Your task to perform on an android device: turn off data saver in the chrome app Image 0: 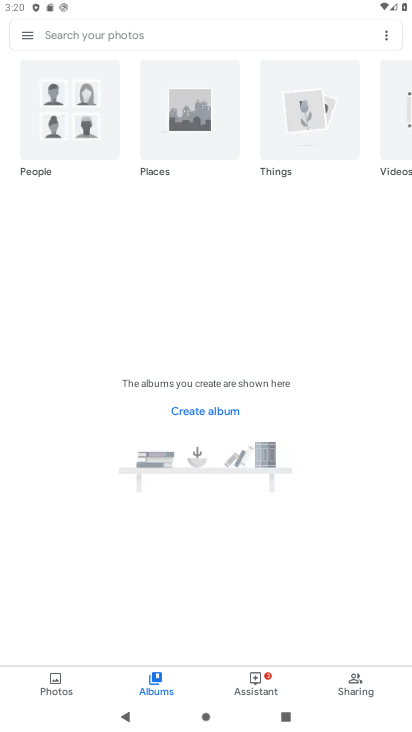
Step 0: press home button
Your task to perform on an android device: turn off data saver in the chrome app Image 1: 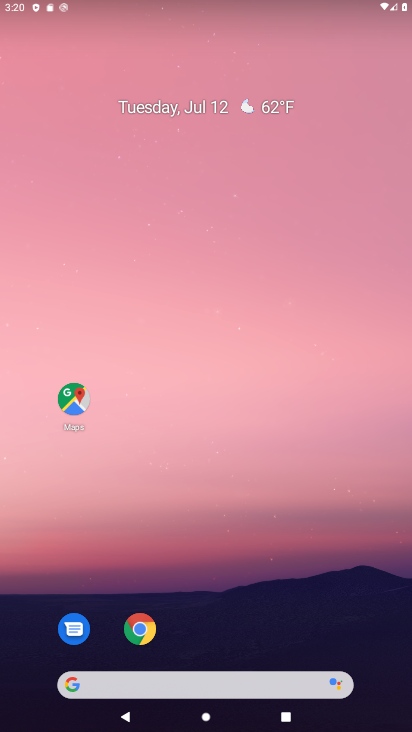
Step 1: drag from (200, 641) to (146, 66)
Your task to perform on an android device: turn off data saver in the chrome app Image 2: 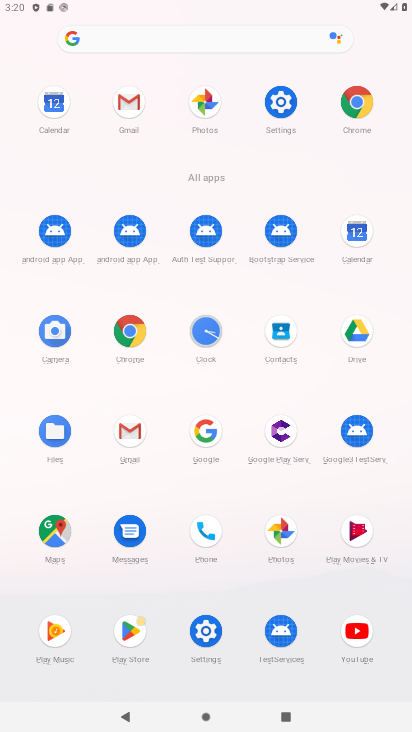
Step 2: click (136, 343)
Your task to perform on an android device: turn off data saver in the chrome app Image 3: 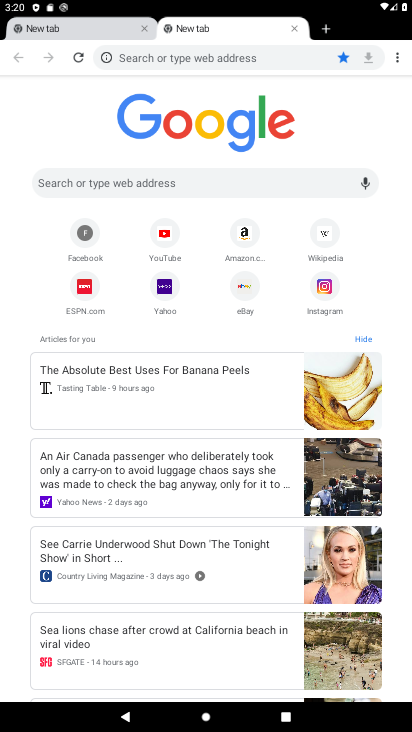
Step 3: click (390, 59)
Your task to perform on an android device: turn off data saver in the chrome app Image 4: 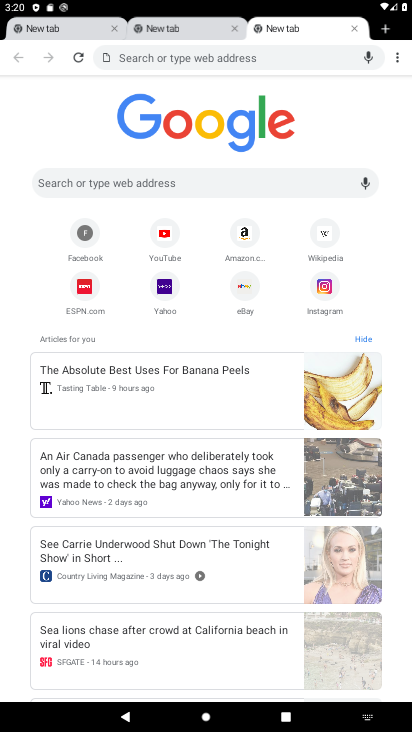
Step 4: drag from (392, 58) to (289, 254)
Your task to perform on an android device: turn off data saver in the chrome app Image 5: 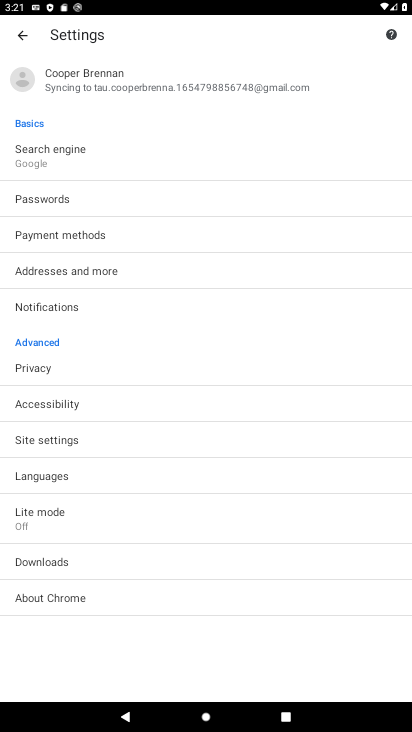
Step 5: click (66, 510)
Your task to perform on an android device: turn off data saver in the chrome app Image 6: 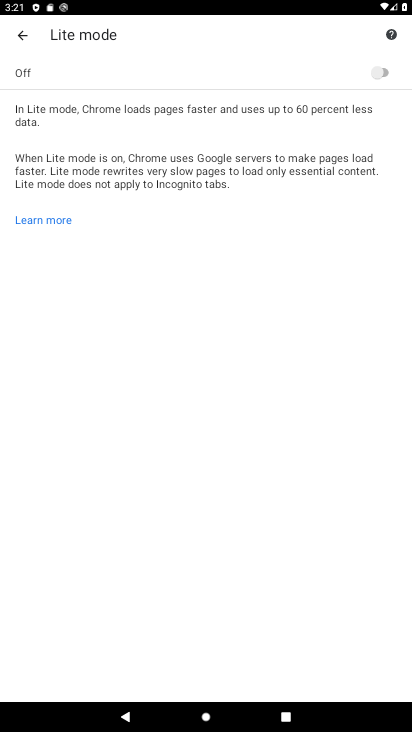
Step 6: task complete